Your task to perform on an android device: turn off location history Image 0: 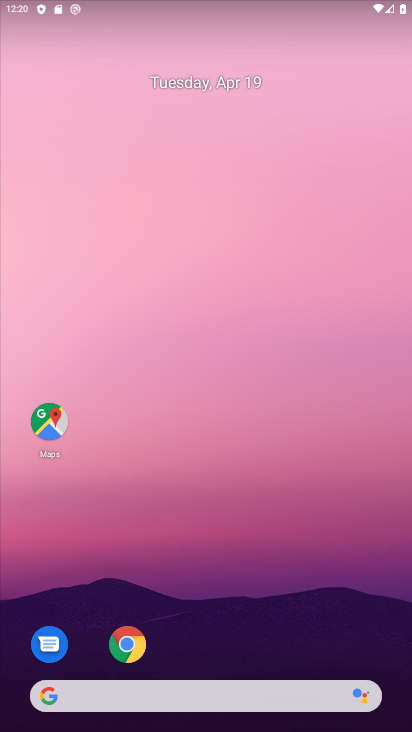
Step 0: drag from (276, 617) to (162, 282)
Your task to perform on an android device: turn off location history Image 1: 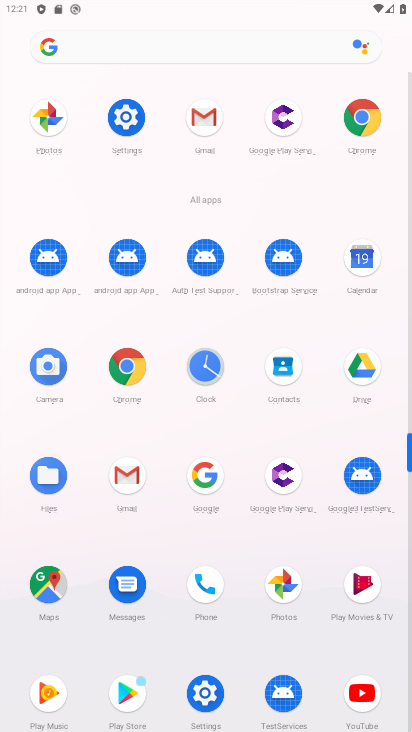
Step 1: click (129, 116)
Your task to perform on an android device: turn off location history Image 2: 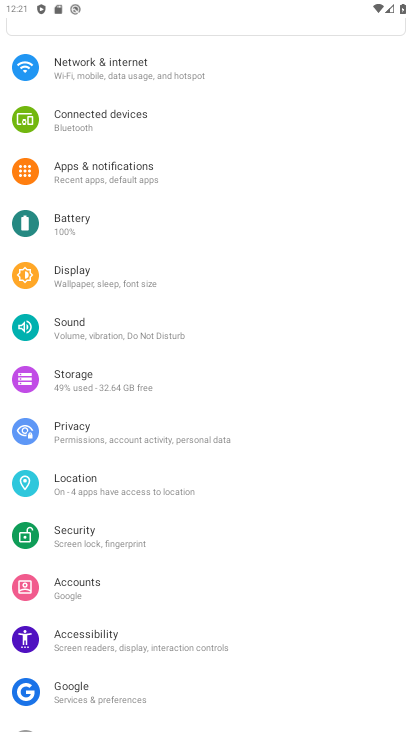
Step 2: click (123, 479)
Your task to perform on an android device: turn off location history Image 3: 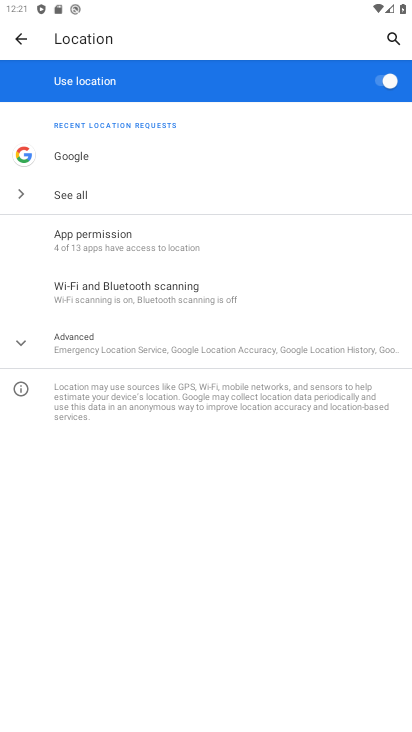
Step 3: click (150, 242)
Your task to perform on an android device: turn off location history Image 4: 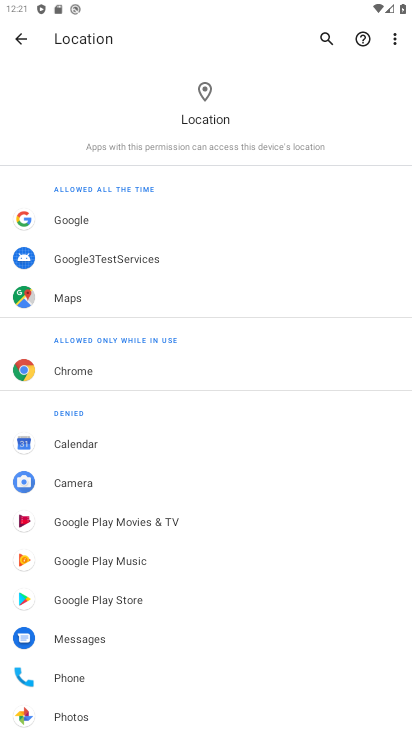
Step 4: drag from (174, 615) to (240, 90)
Your task to perform on an android device: turn off location history Image 5: 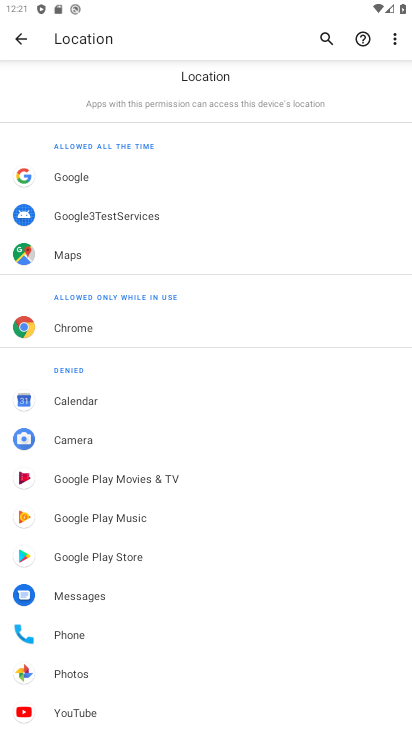
Step 5: click (22, 47)
Your task to perform on an android device: turn off location history Image 6: 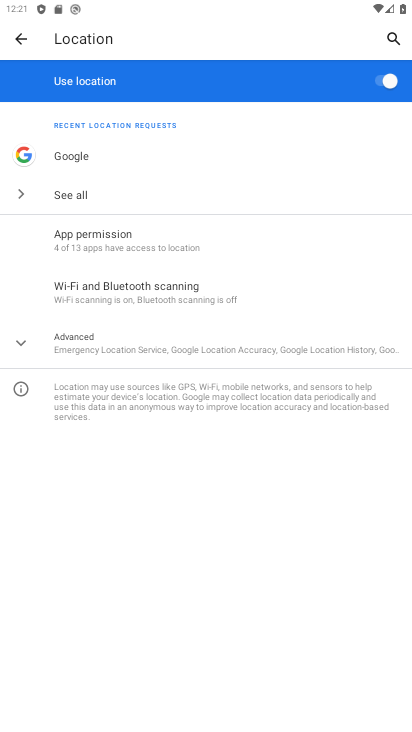
Step 6: click (138, 335)
Your task to perform on an android device: turn off location history Image 7: 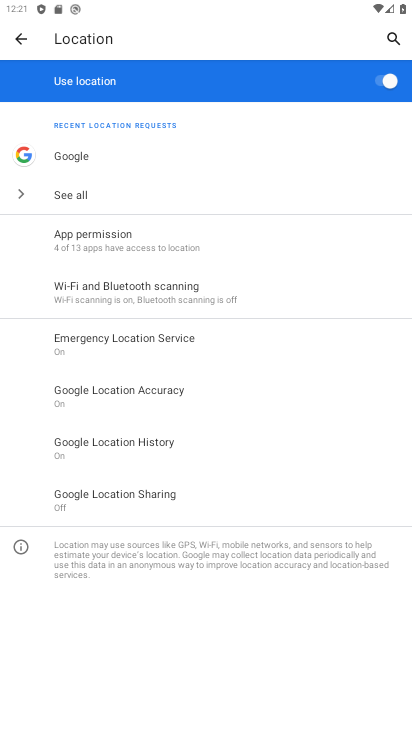
Step 7: click (194, 436)
Your task to perform on an android device: turn off location history Image 8: 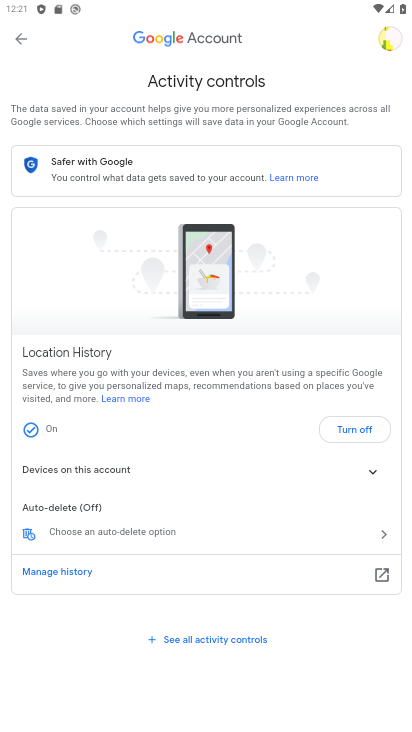
Step 8: click (355, 432)
Your task to perform on an android device: turn off location history Image 9: 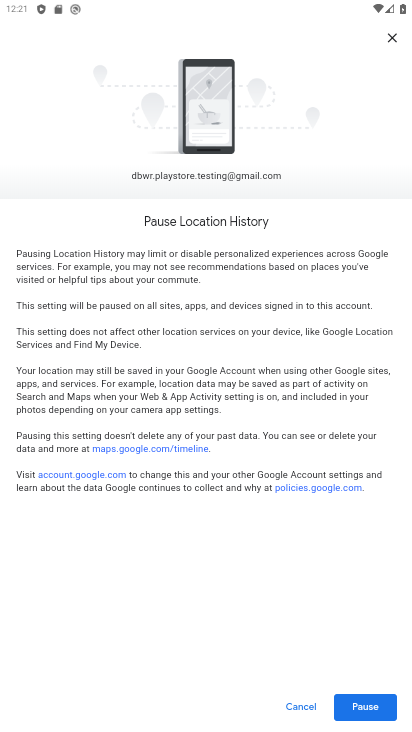
Step 9: click (382, 711)
Your task to perform on an android device: turn off location history Image 10: 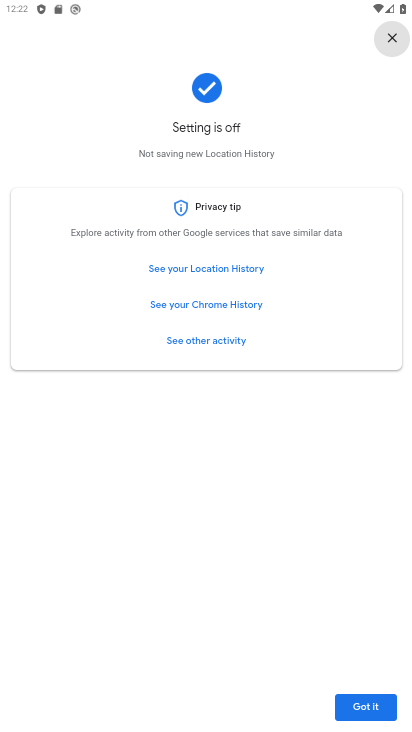
Step 10: click (349, 709)
Your task to perform on an android device: turn off location history Image 11: 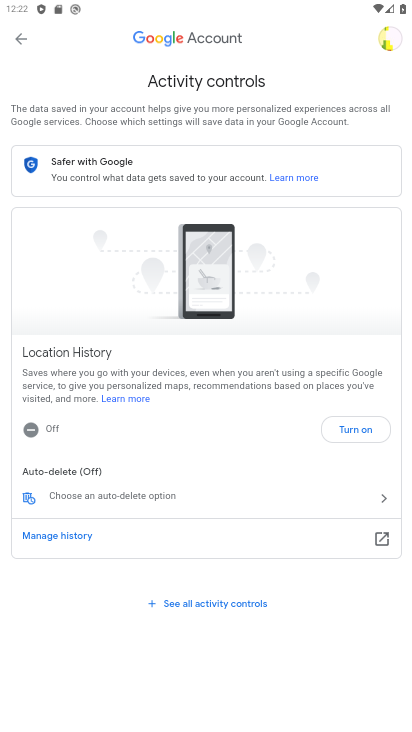
Step 11: task complete